Your task to perform on an android device: What's the weather going to be tomorrow? Image 0: 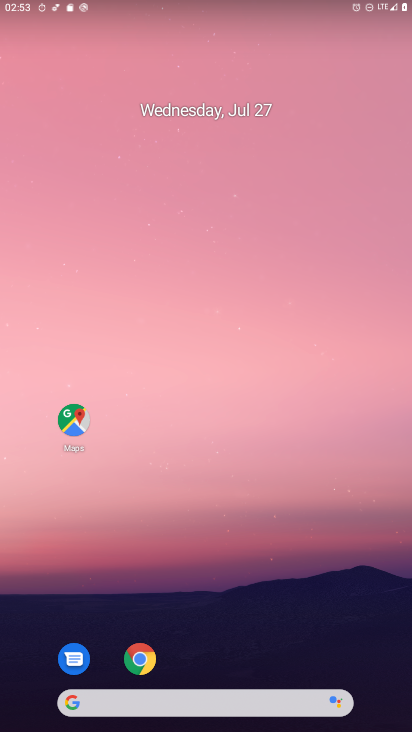
Step 0: drag from (329, 620) to (323, 119)
Your task to perform on an android device: What's the weather going to be tomorrow? Image 1: 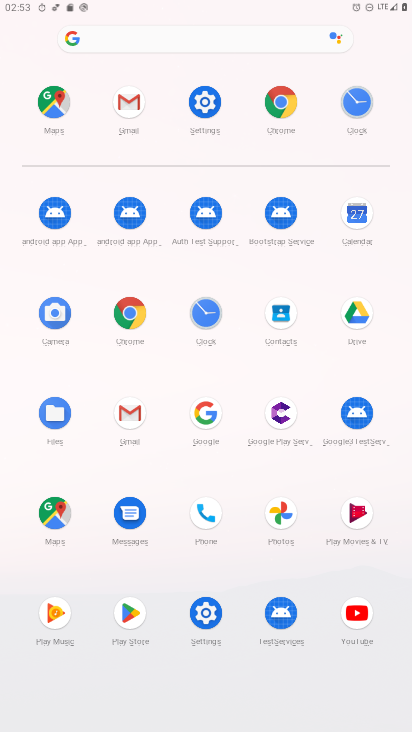
Step 1: click (127, 316)
Your task to perform on an android device: What's the weather going to be tomorrow? Image 2: 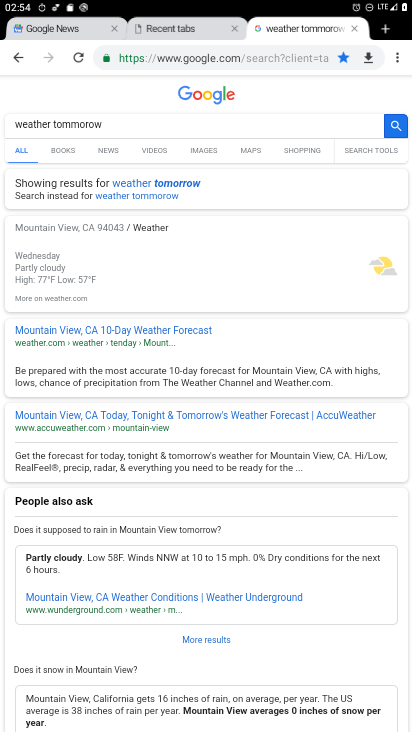
Step 2: task complete